Your task to perform on an android device: Open settings on Google Maps Image 0: 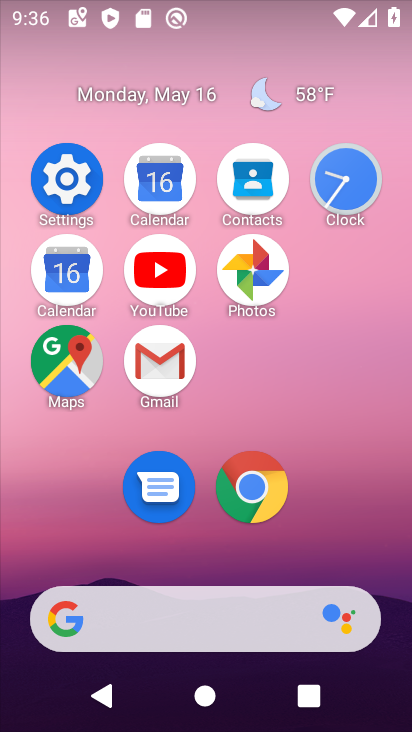
Step 0: click (84, 367)
Your task to perform on an android device: Open settings on Google Maps Image 1: 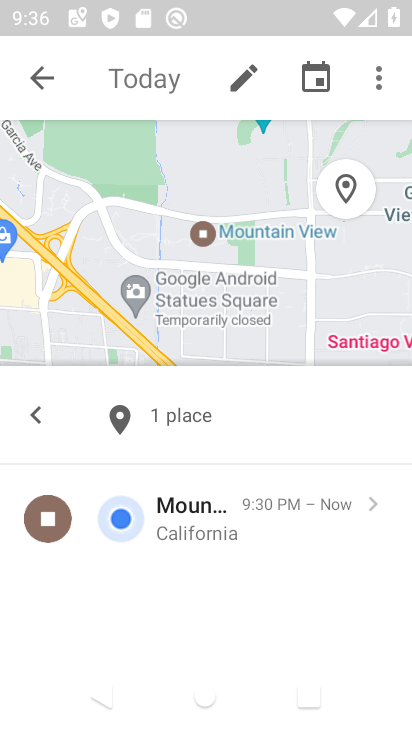
Step 1: click (55, 80)
Your task to perform on an android device: Open settings on Google Maps Image 2: 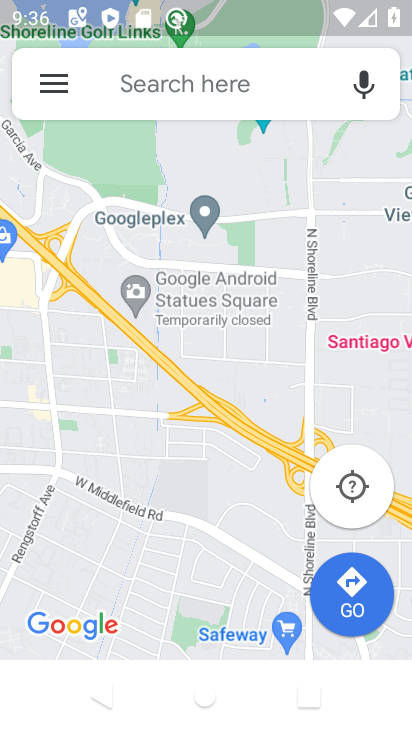
Step 2: click (55, 85)
Your task to perform on an android device: Open settings on Google Maps Image 3: 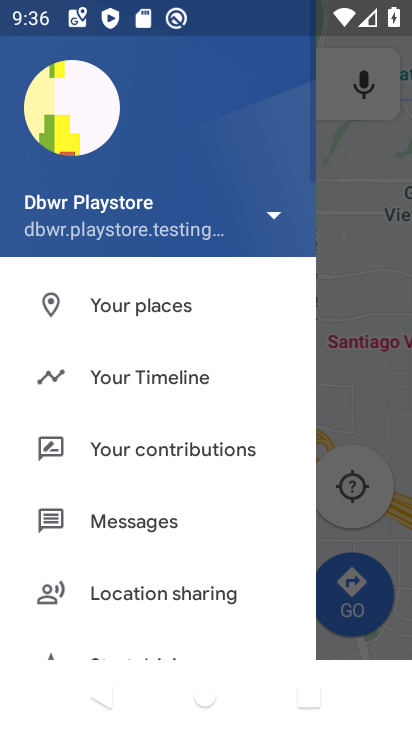
Step 3: drag from (127, 556) to (152, 215)
Your task to perform on an android device: Open settings on Google Maps Image 4: 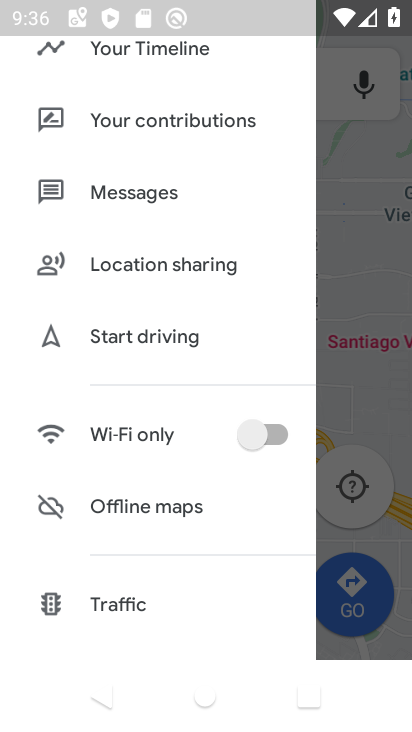
Step 4: drag from (146, 474) to (141, 161)
Your task to perform on an android device: Open settings on Google Maps Image 5: 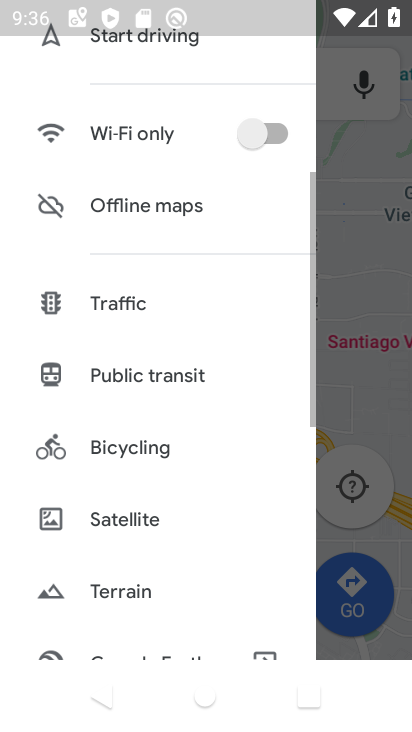
Step 5: drag from (176, 569) to (210, 207)
Your task to perform on an android device: Open settings on Google Maps Image 6: 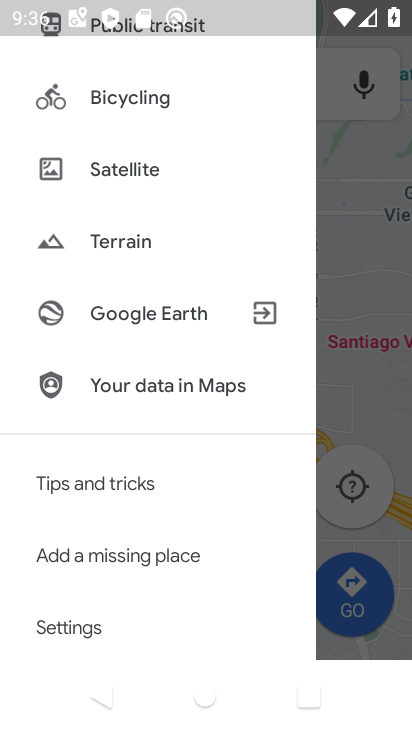
Step 6: click (87, 629)
Your task to perform on an android device: Open settings on Google Maps Image 7: 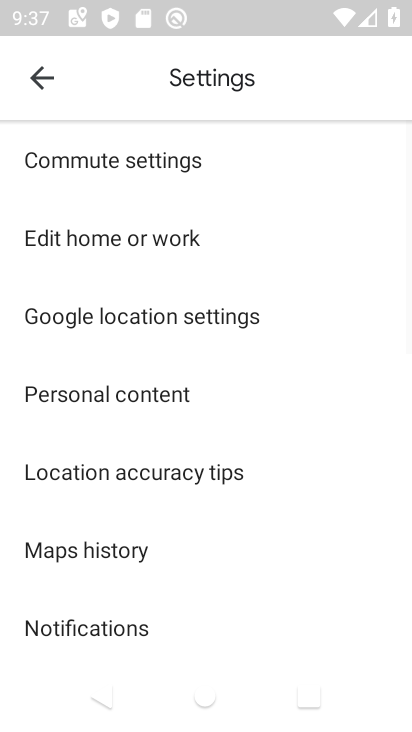
Step 7: task complete